Your task to perform on an android device: turn on wifi Image 0: 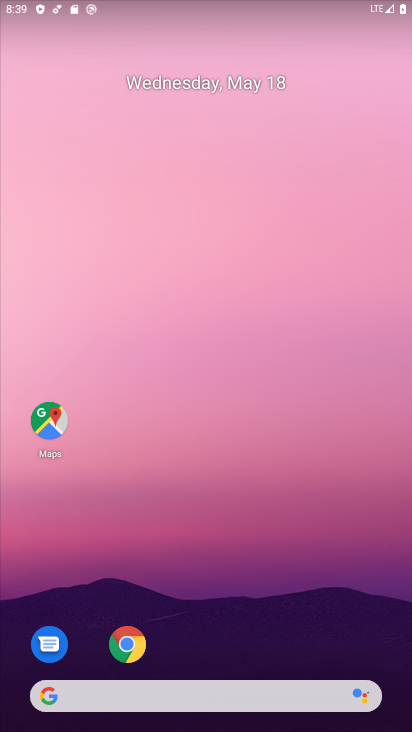
Step 0: drag from (181, 505) to (272, 12)
Your task to perform on an android device: turn on wifi Image 1: 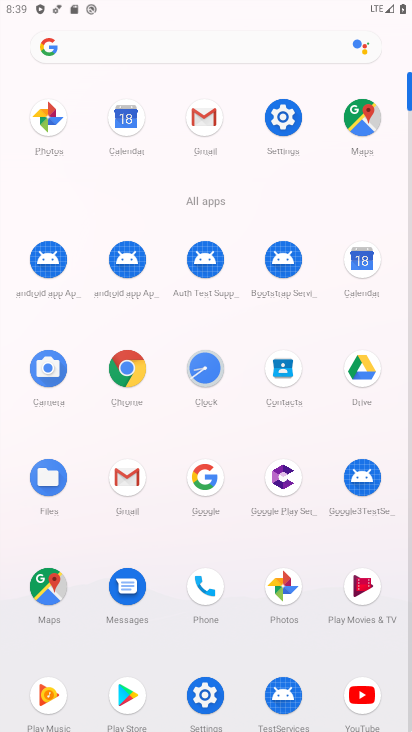
Step 1: click (283, 128)
Your task to perform on an android device: turn on wifi Image 2: 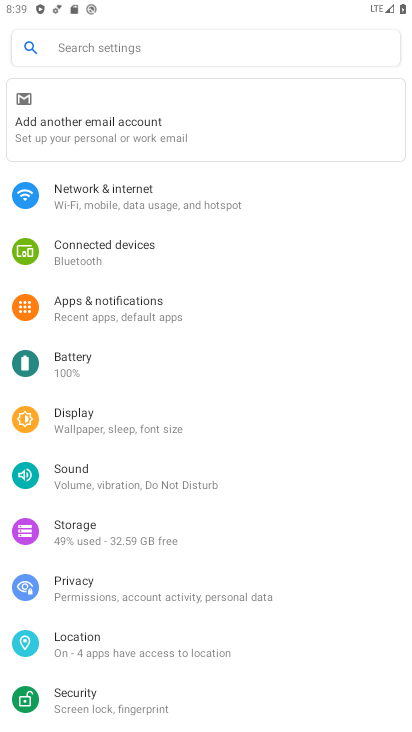
Step 2: click (150, 213)
Your task to perform on an android device: turn on wifi Image 3: 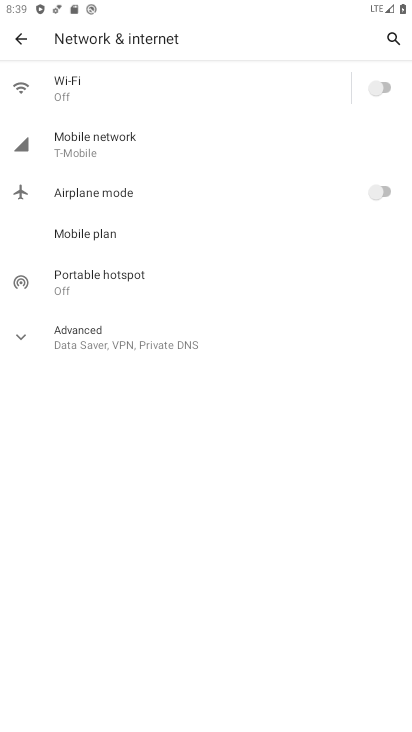
Step 3: click (383, 87)
Your task to perform on an android device: turn on wifi Image 4: 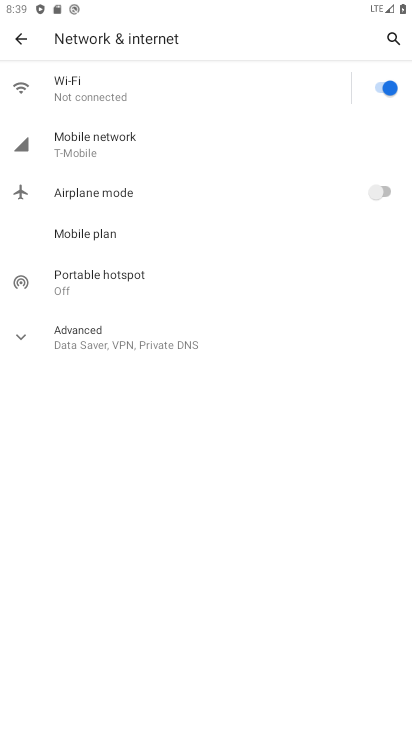
Step 4: task complete